Your task to perform on an android device: Open settings Image 0: 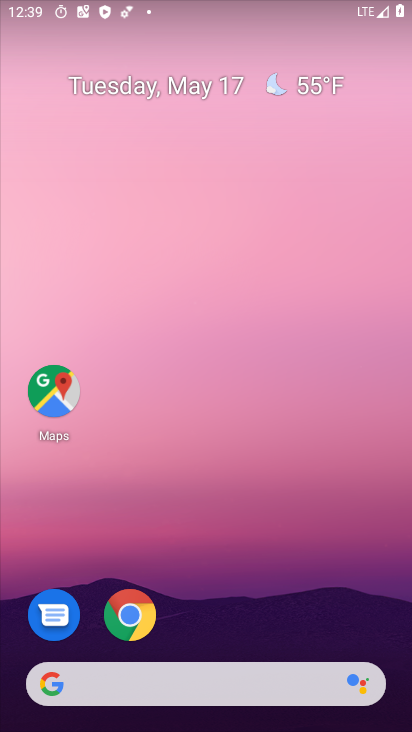
Step 0: press home button
Your task to perform on an android device: Open settings Image 1: 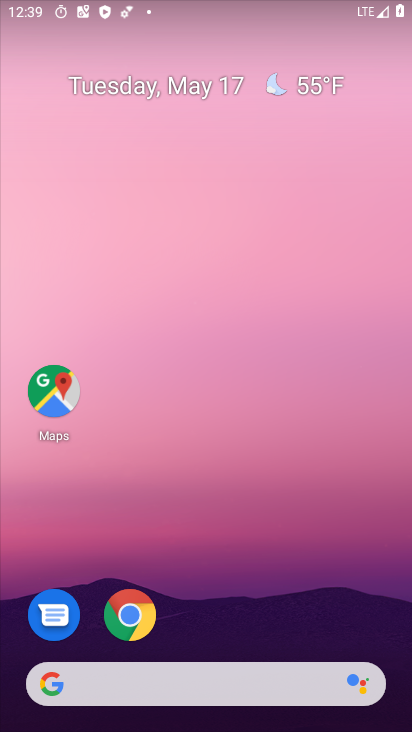
Step 1: drag from (273, 568) to (233, 5)
Your task to perform on an android device: Open settings Image 2: 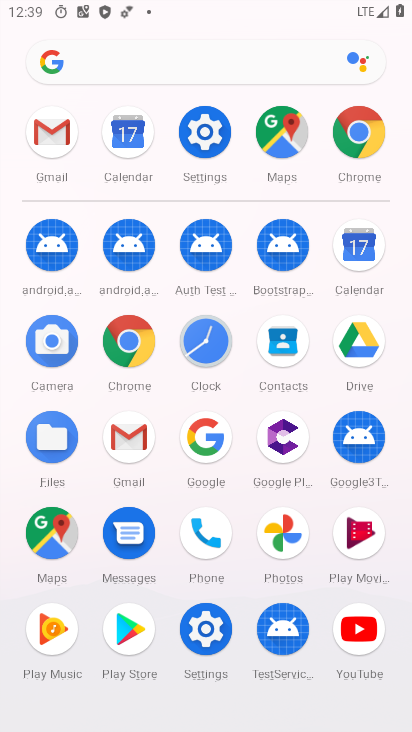
Step 2: click (206, 135)
Your task to perform on an android device: Open settings Image 3: 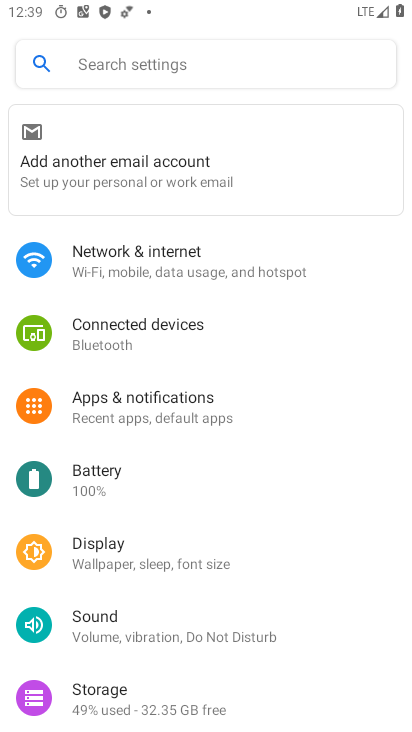
Step 3: task complete